Your task to perform on an android device: find photos in the google photos app Image 0: 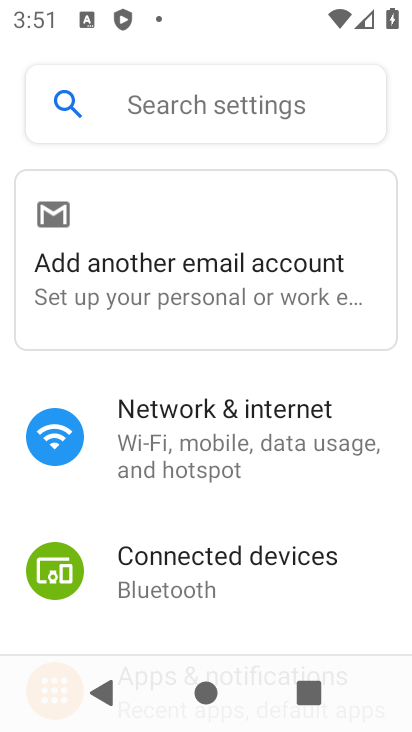
Step 0: task complete